Your task to perform on an android device: move a message to another label in the gmail app Image 0: 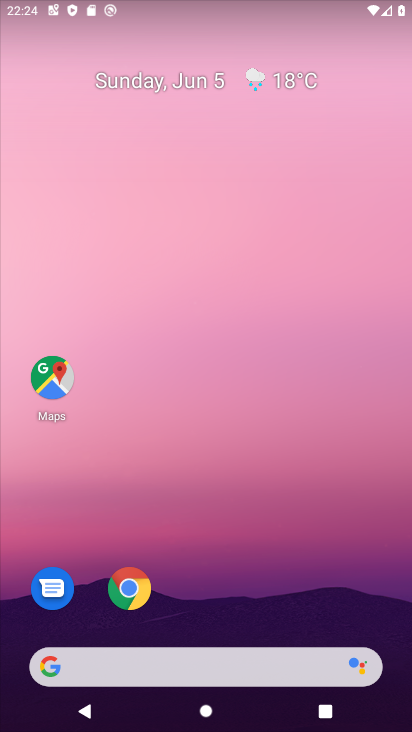
Step 0: drag from (372, 609) to (360, 162)
Your task to perform on an android device: move a message to another label in the gmail app Image 1: 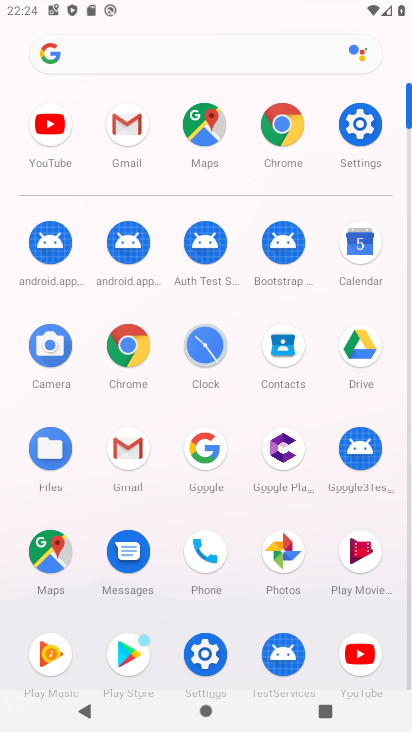
Step 1: click (137, 456)
Your task to perform on an android device: move a message to another label in the gmail app Image 2: 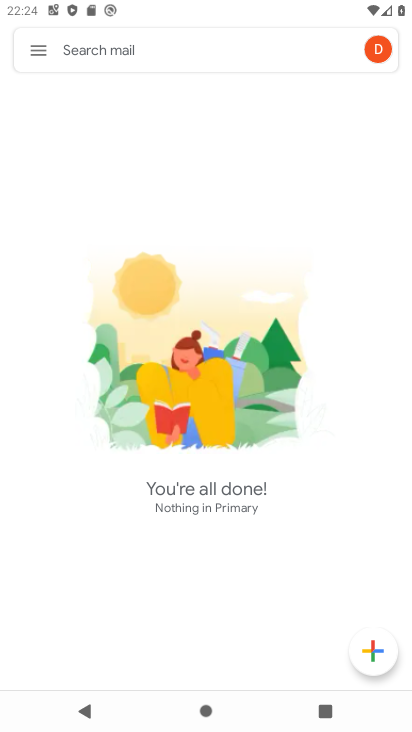
Step 2: task complete